Your task to perform on an android device: refresh tabs in the chrome app Image 0: 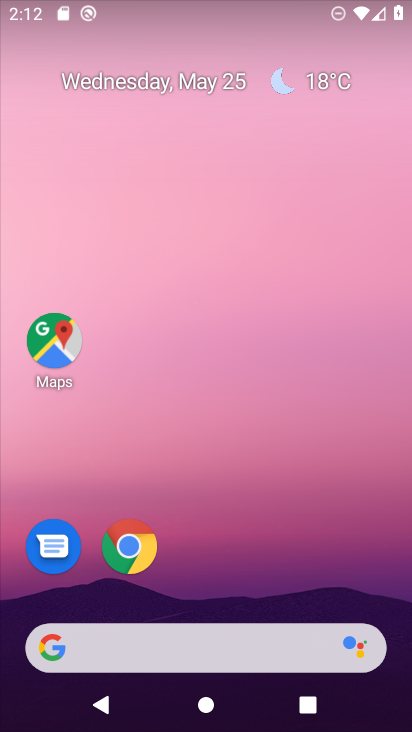
Step 0: drag from (211, 614) to (172, 1)
Your task to perform on an android device: refresh tabs in the chrome app Image 1: 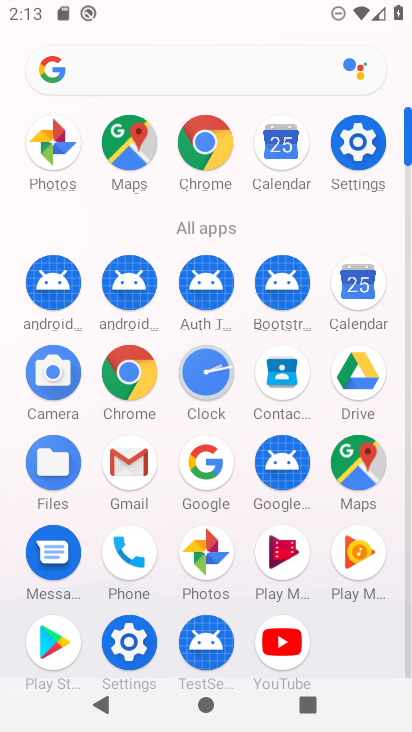
Step 1: click (147, 377)
Your task to perform on an android device: refresh tabs in the chrome app Image 2: 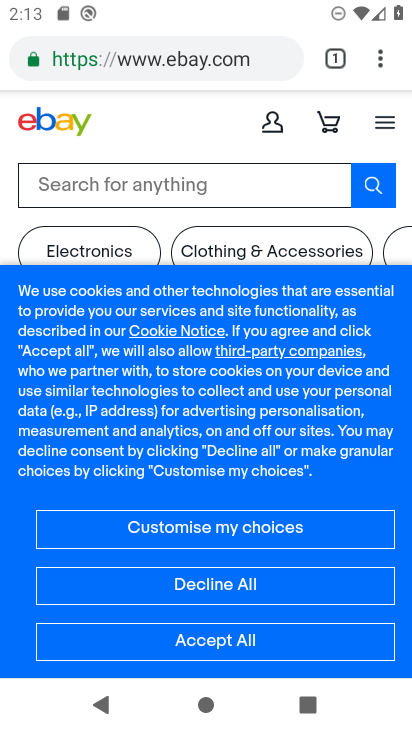
Step 2: click (384, 65)
Your task to perform on an android device: refresh tabs in the chrome app Image 3: 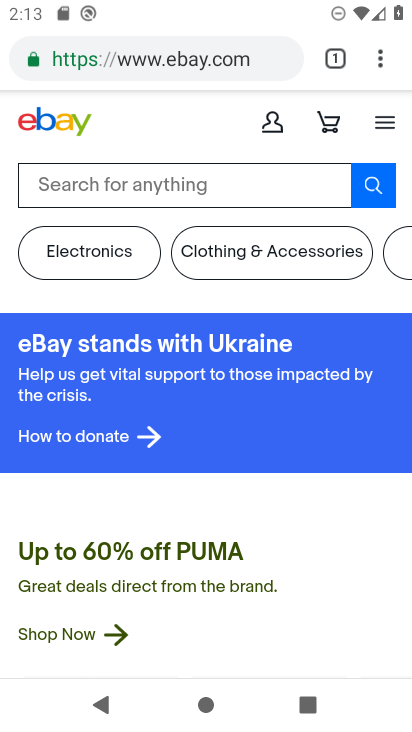
Step 3: task complete